Your task to perform on an android device: Go to settings Image 0: 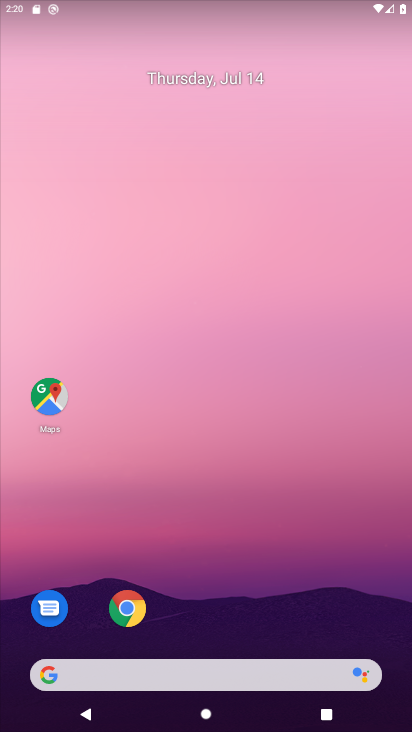
Step 0: drag from (314, 581) to (268, 27)
Your task to perform on an android device: Go to settings Image 1: 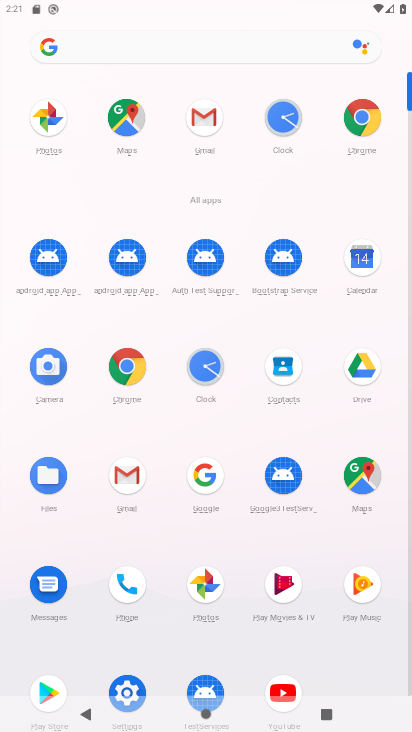
Step 1: click (145, 684)
Your task to perform on an android device: Go to settings Image 2: 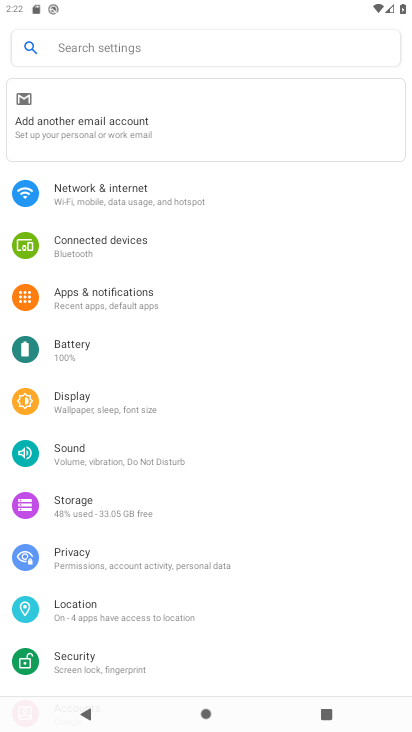
Step 2: task complete